Your task to perform on an android device: Clear the shopping cart on amazon.com. Image 0: 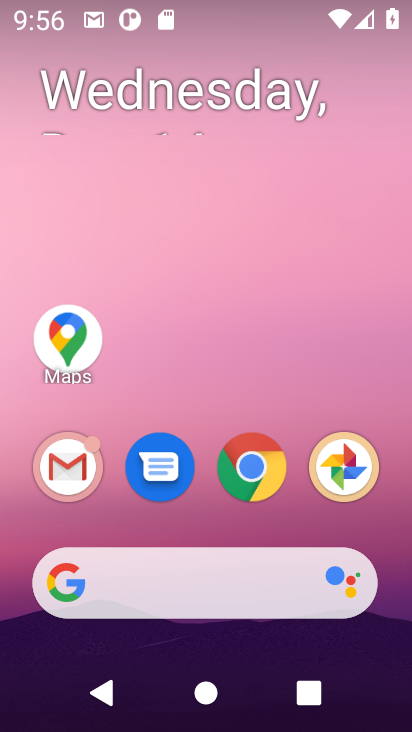
Step 0: task complete